Your task to perform on an android device: What's the weather today? Image 0: 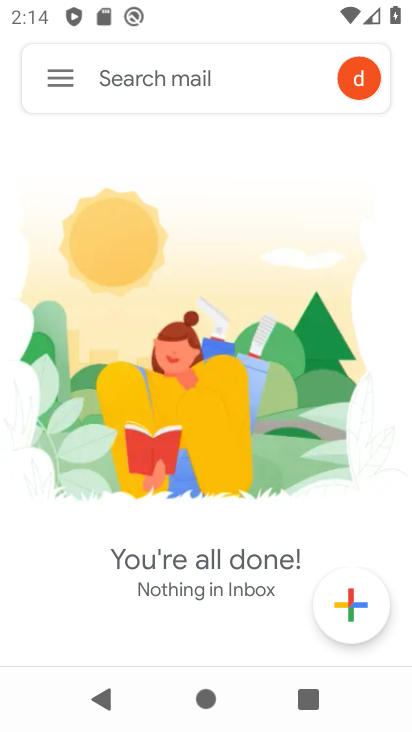
Step 0: press home button
Your task to perform on an android device: What's the weather today? Image 1: 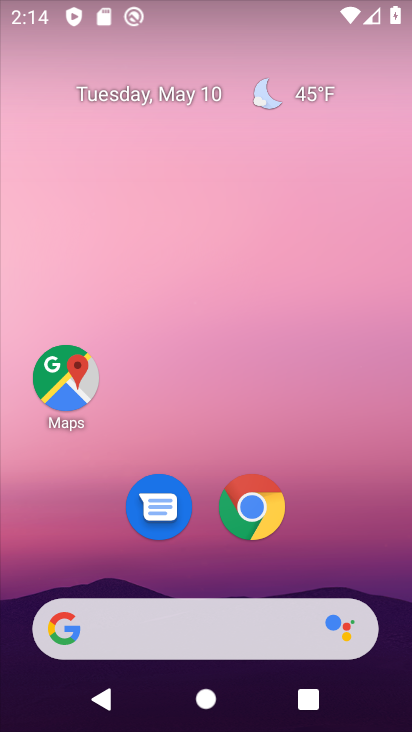
Step 1: click (278, 509)
Your task to perform on an android device: What's the weather today? Image 2: 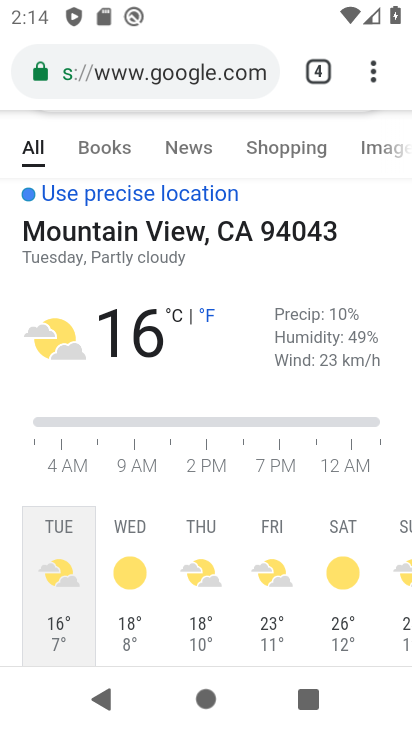
Step 2: task complete